Your task to perform on an android device: turn on the 24-hour format for clock Image 0: 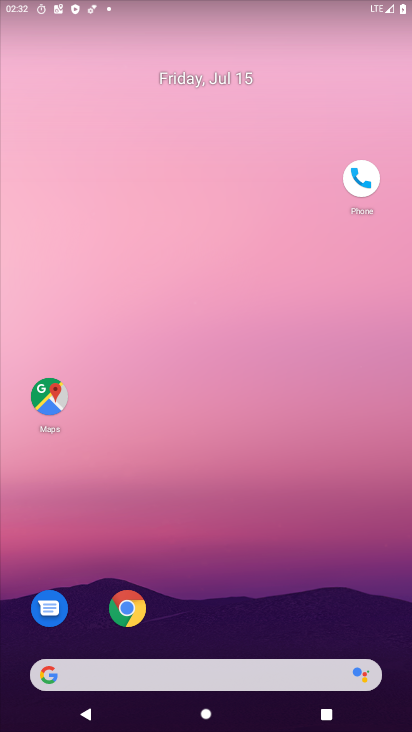
Step 0: drag from (244, 140) to (252, 42)
Your task to perform on an android device: turn on the 24-hour format for clock Image 1: 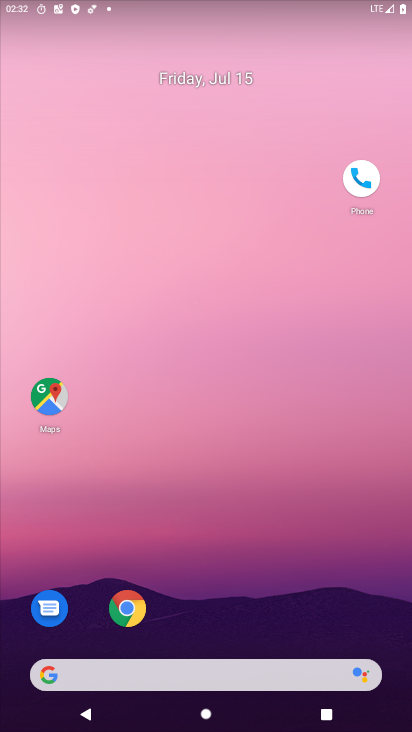
Step 1: drag from (158, 596) to (249, 120)
Your task to perform on an android device: turn on the 24-hour format for clock Image 2: 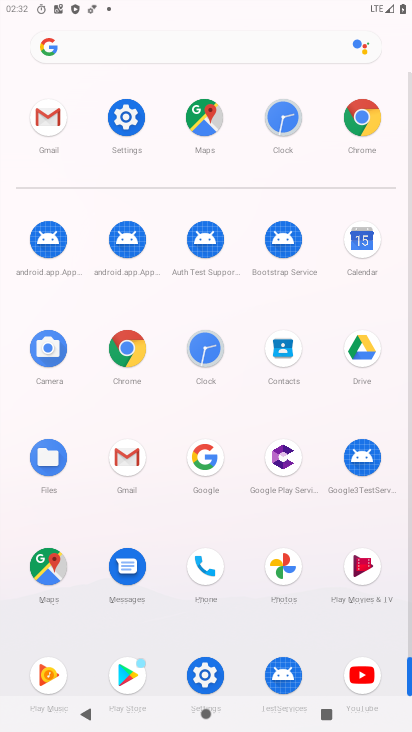
Step 2: drag from (245, 656) to (264, 283)
Your task to perform on an android device: turn on the 24-hour format for clock Image 3: 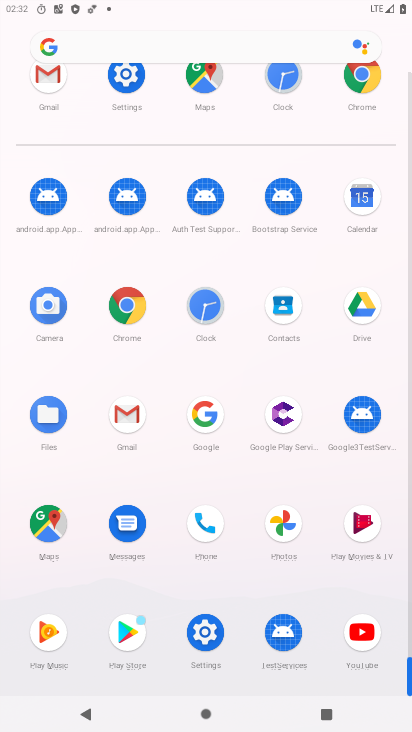
Step 3: click (205, 298)
Your task to perform on an android device: turn on the 24-hour format for clock Image 4: 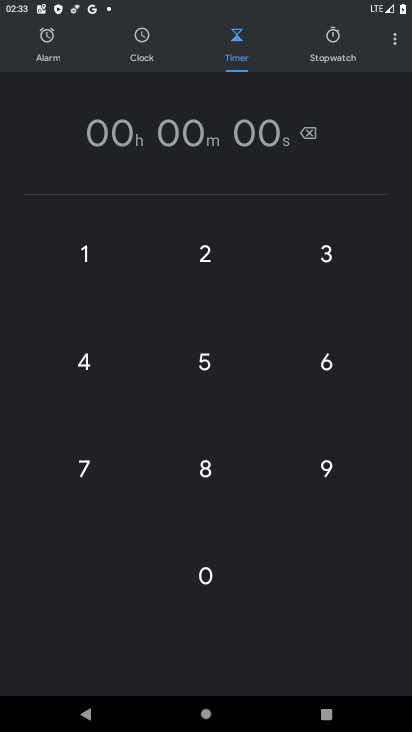
Step 4: click (390, 34)
Your task to perform on an android device: turn on the 24-hour format for clock Image 5: 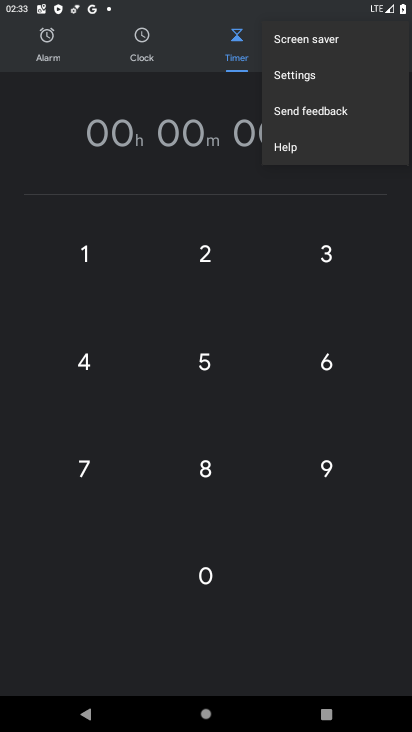
Step 5: click (310, 74)
Your task to perform on an android device: turn on the 24-hour format for clock Image 6: 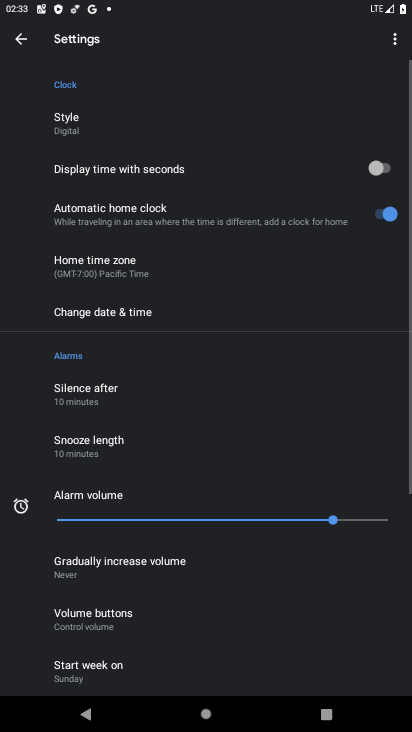
Step 6: drag from (205, 584) to (238, 244)
Your task to perform on an android device: turn on the 24-hour format for clock Image 7: 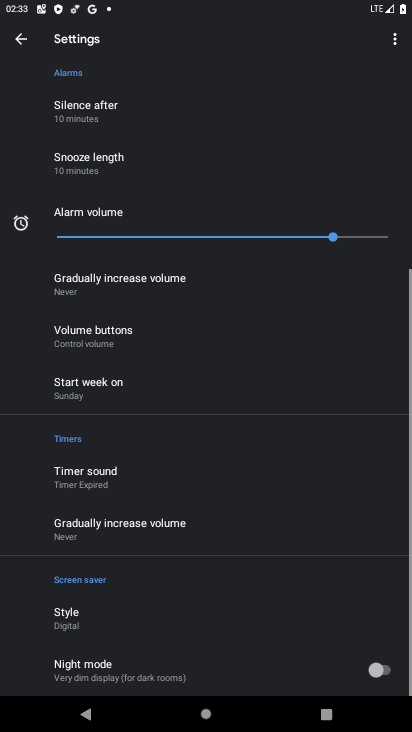
Step 7: drag from (249, 196) to (267, 731)
Your task to perform on an android device: turn on the 24-hour format for clock Image 8: 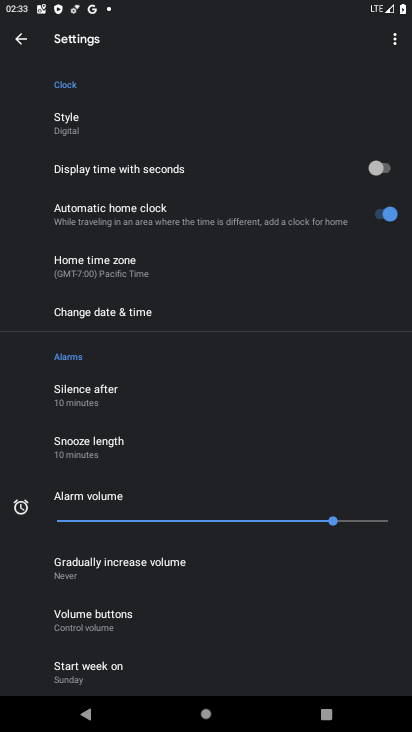
Step 8: drag from (242, 290) to (297, 657)
Your task to perform on an android device: turn on the 24-hour format for clock Image 9: 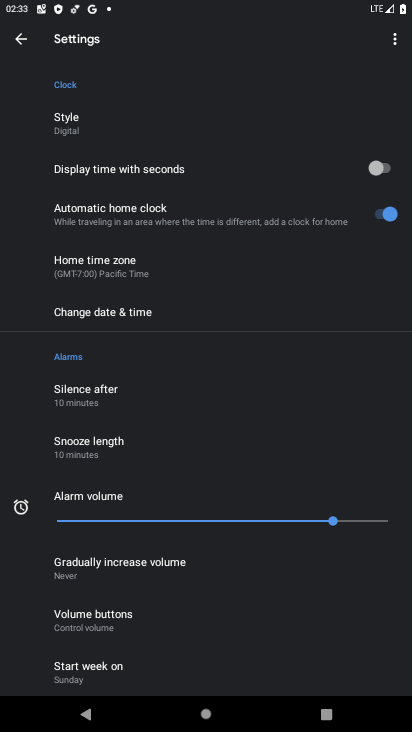
Step 9: click (122, 320)
Your task to perform on an android device: turn on the 24-hour format for clock Image 10: 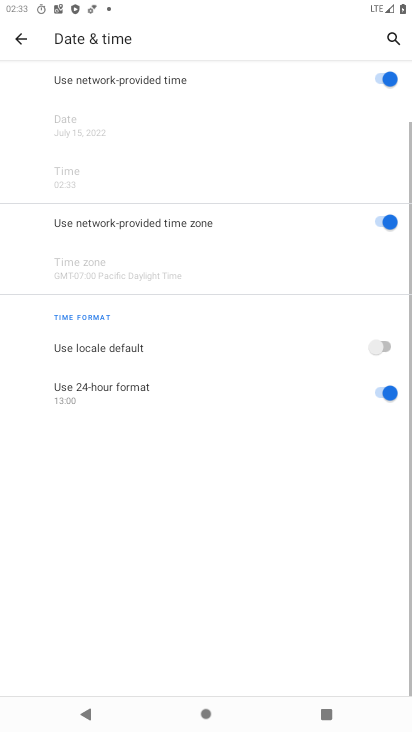
Step 10: task complete